Your task to perform on an android device: find snoozed emails in the gmail app Image 0: 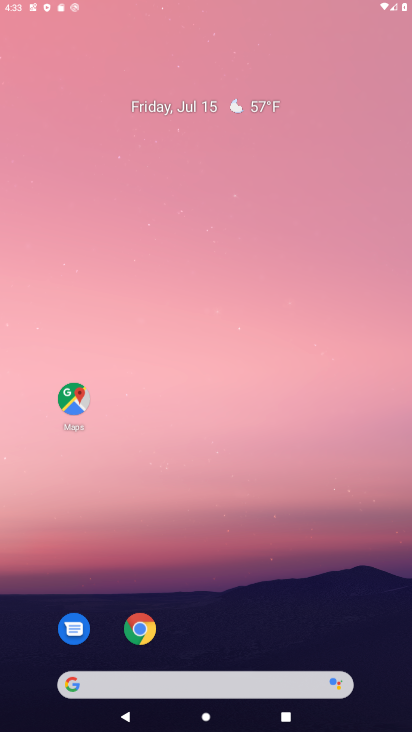
Step 0: press home button
Your task to perform on an android device: find snoozed emails in the gmail app Image 1: 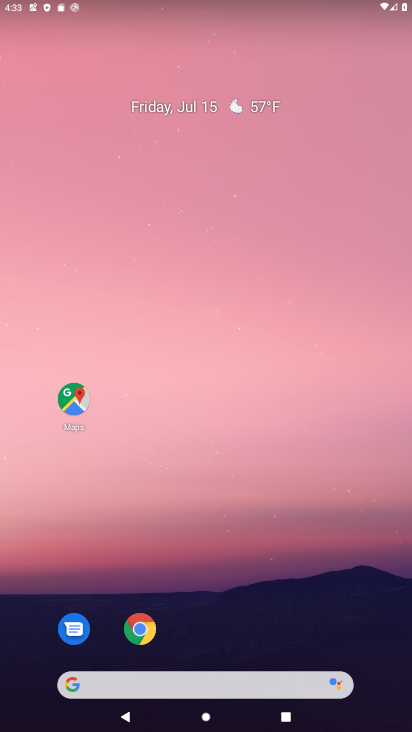
Step 1: drag from (307, 622) to (222, 4)
Your task to perform on an android device: find snoozed emails in the gmail app Image 2: 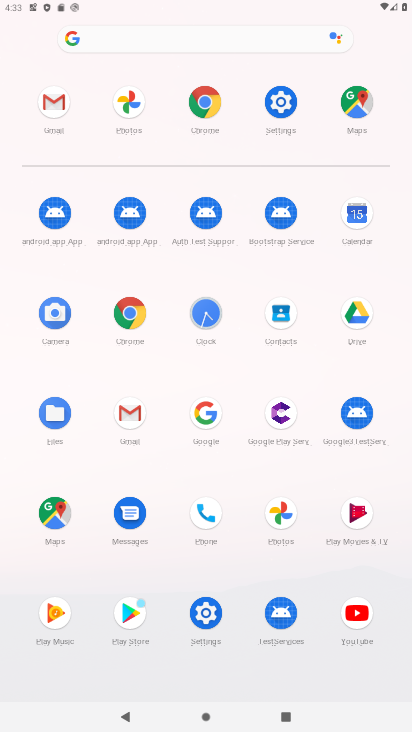
Step 2: click (56, 100)
Your task to perform on an android device: find snoozed emails in the gmail app Image 3: 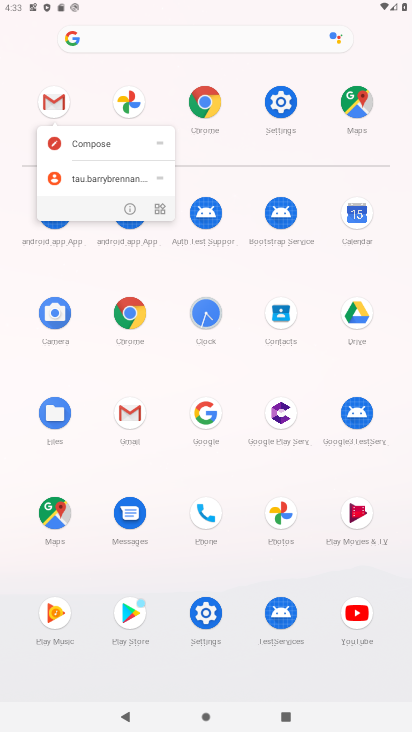
Step 3: click (56, 100)
Your task to perform on an android device: find snoozed emails in the gmail app Image 4: 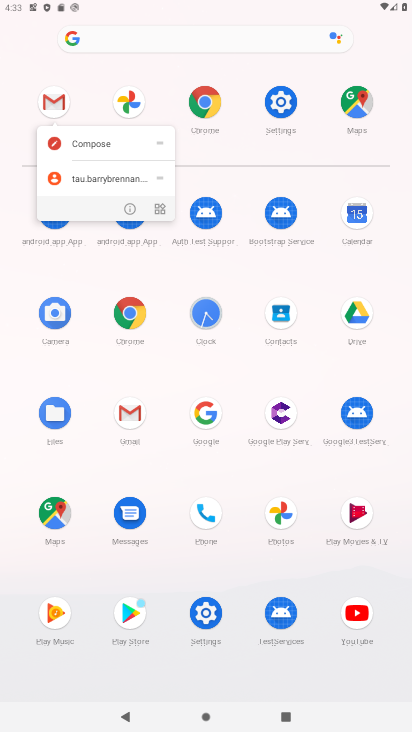
Step 4: click (56, 100)
Your task to perform on an android device: find snoozed emails in the gmail app Image 5: 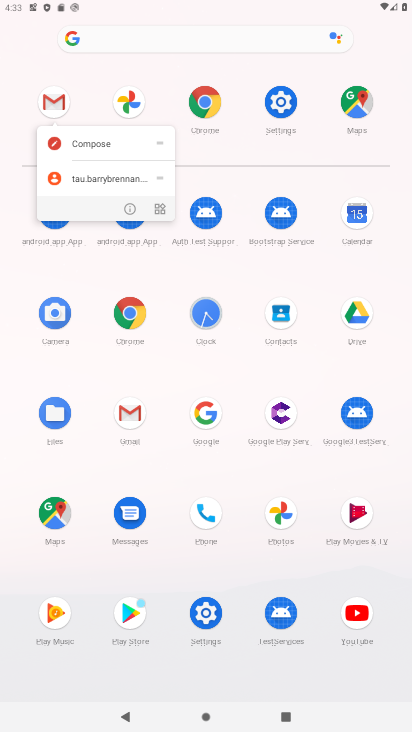
Step 5: click (56, 100)
Your task to perform on an android device: find snoozed emails in the gmail app Image 6: 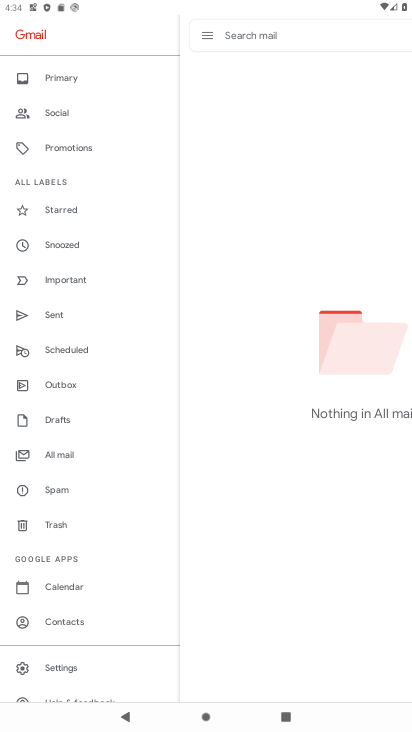
Step 6: click (64, 245)
Your task to perform on an android device: find snoozed emails in the gmail app Image 7: 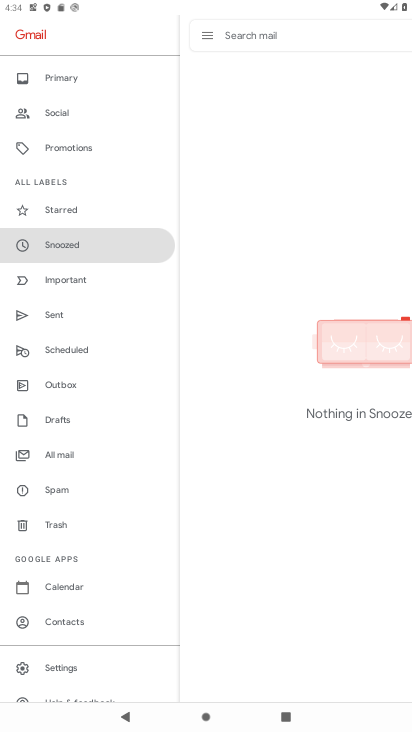
Step 7: task complete